Your task to perform on an android device: empty trash in the gmail app Image 0: 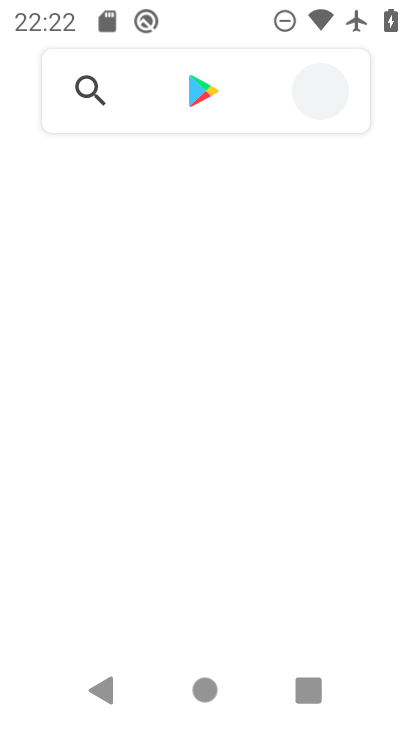
Step 0: drag from (228, 523) to (215, 181)
Your task to perform on an android device: empty trash in the gmail app Image 1: 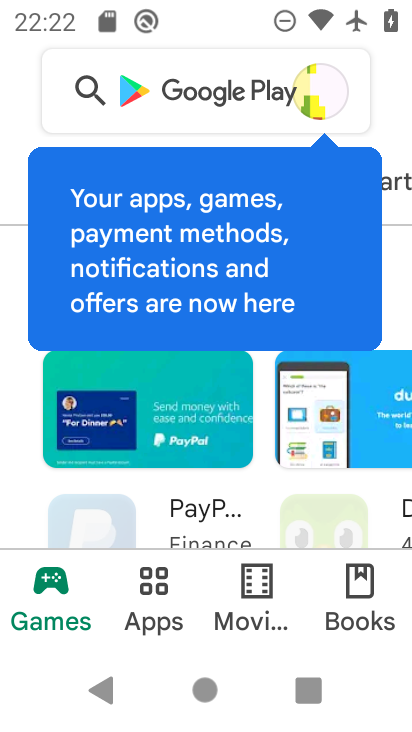
Step 1: press home button
Your task to perform on an android device: empty trash in the gmail app Image 2: 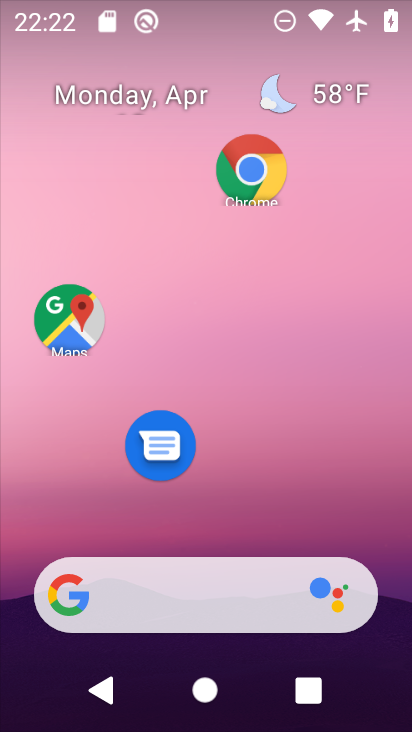
Step 2: drag from (214, 527) to (214, 128)
Your task to perform on an android device: empty trash in the gmail app Image 3: 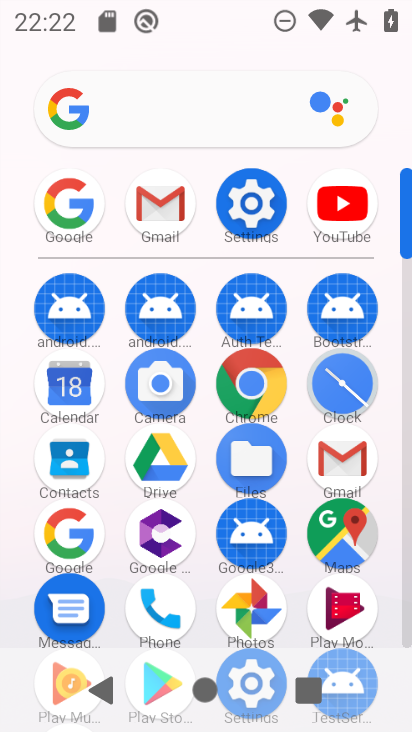
Step 3: click (334, 457)
Your task to perform on an android device: empty trash in the gmail app Image 4: 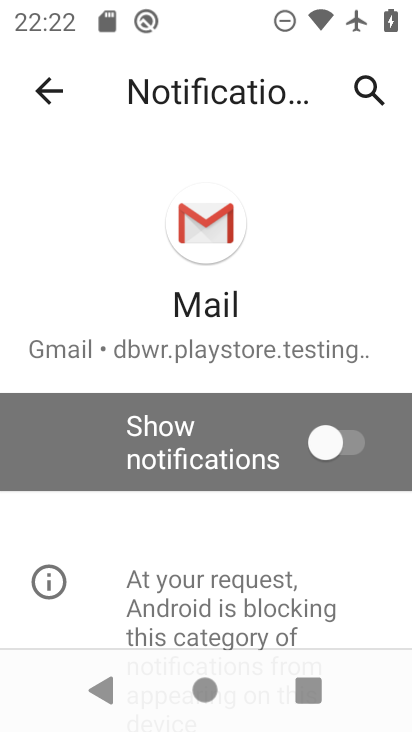
Step 4: click (42, 99)
Your task to perform on an android device: empty trash in the gmail app Image 5: 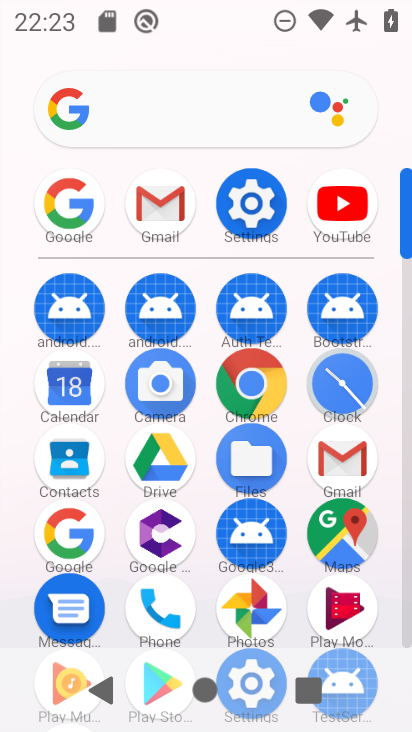
Step 5: click (331, 460)
Your task to perform on an android device: empty trash in the gmail app Image 6: 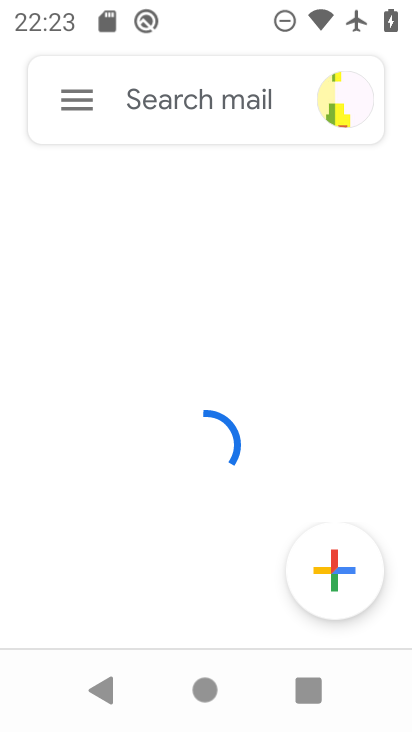
Step 6: click (80, 107)
Your task to perform on an android device: empty trash in the gmail app Image 7: 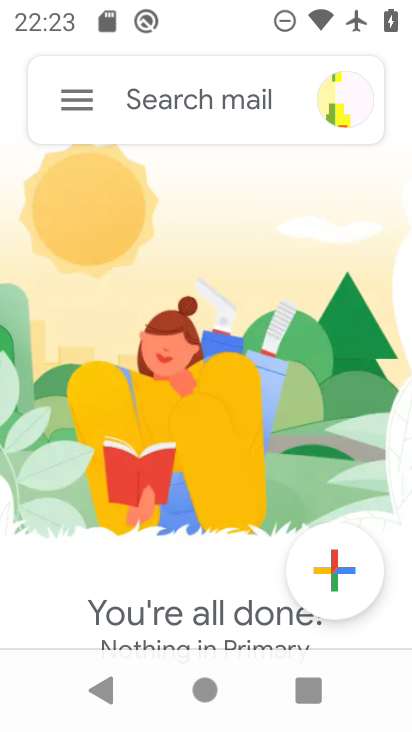
Step 7: click (88, 99)
Your task to perform on an android device: empty trash in the gmail app Image 8: 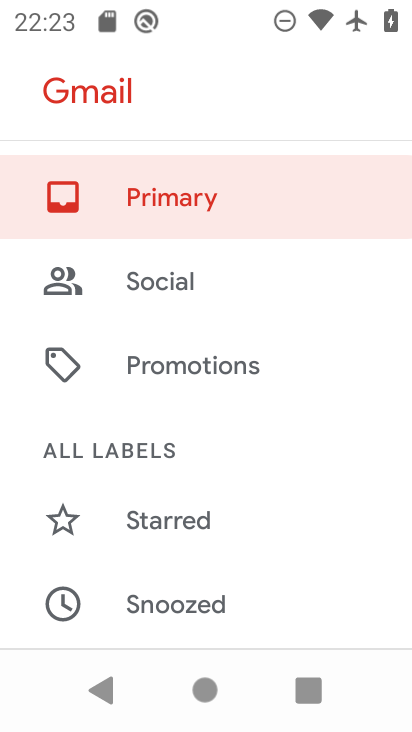
Step 8: drag from (201, 558) to (233, 197)
Your task to perform on an android device: empty trash in the gmail app Image 9: 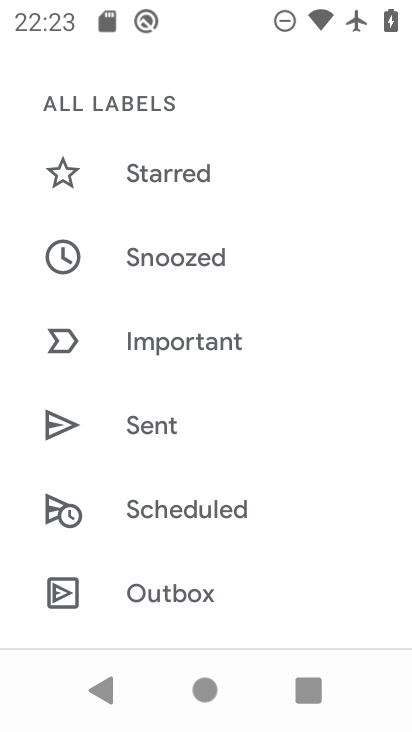
Step 9: drag from (208, 495) to (226, 223)
Your task to perform on an android device: empty trash in the gmail app Image 10: 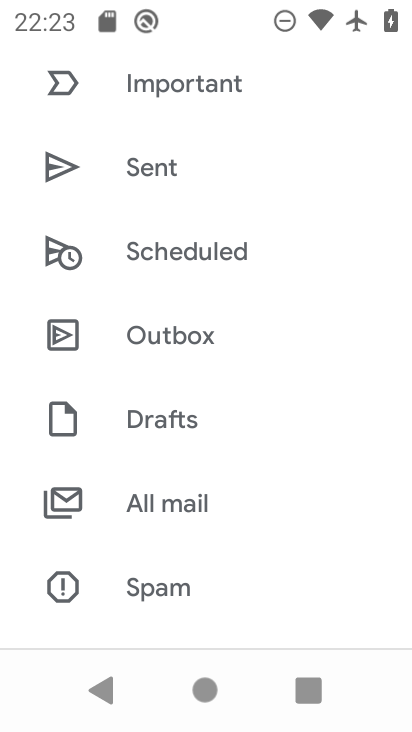
Step 10: drag from (233, 542) to (244, 298)
Your task to perform on an android device: empty trash in the gmail app Image 11: 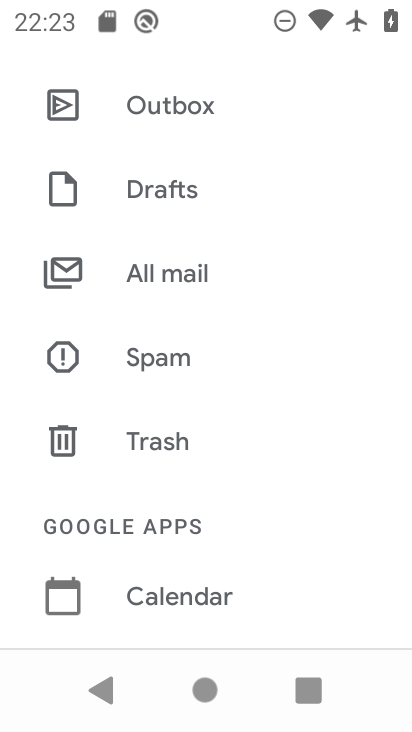
Step 11: click (135, 440)
Your task to perform on an android device: empty trash in the gmail app Image 12: 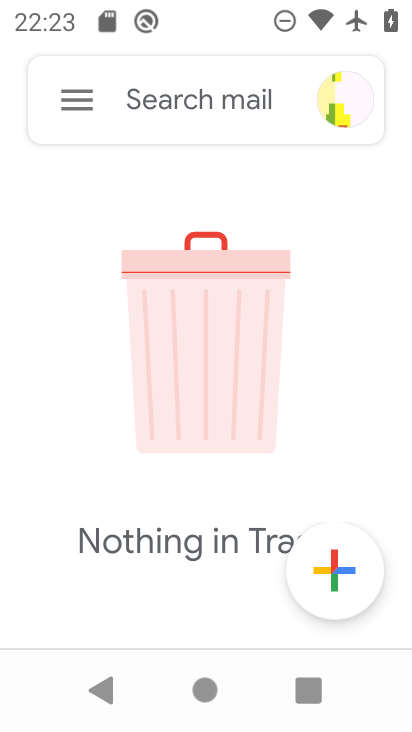
Step 12: task complete